Your task to perform on an android device: Open Maps and search for coffee Image 0: 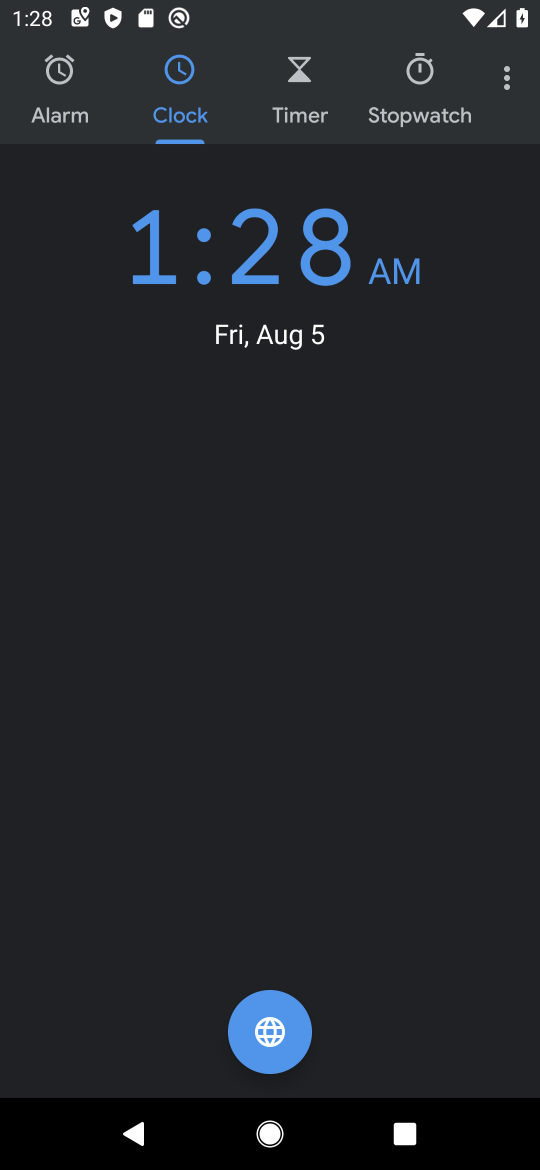
Step 0: press home button
Your task to perform on an android device: Open Maps and search for coffee Image 1: 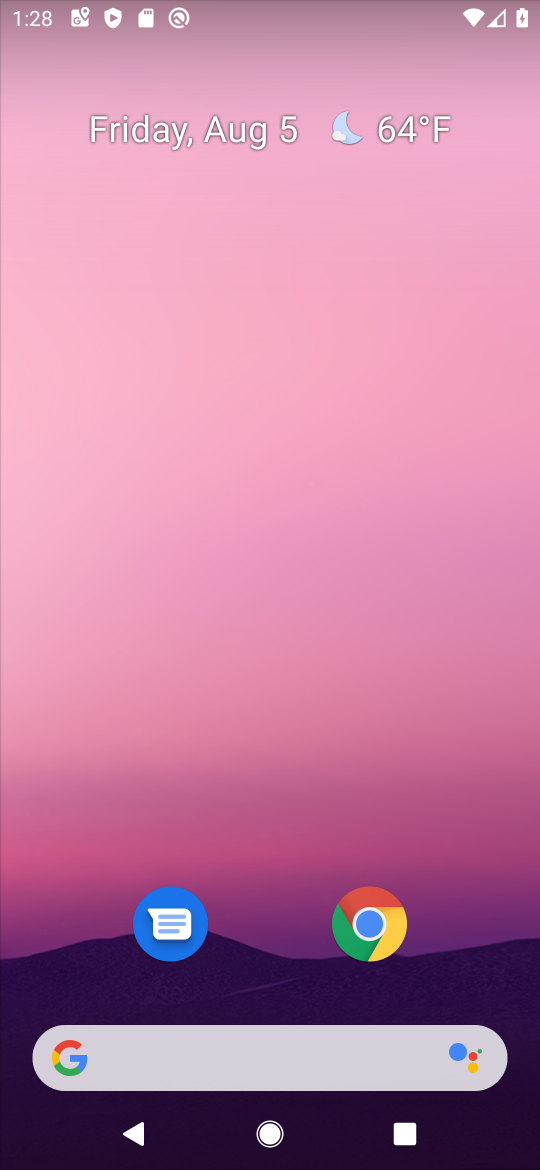
Step 1: drag from (202, 1064) to (272, 224)
Your task to perform on an android device: Open Maps and search for coffee Image 2: 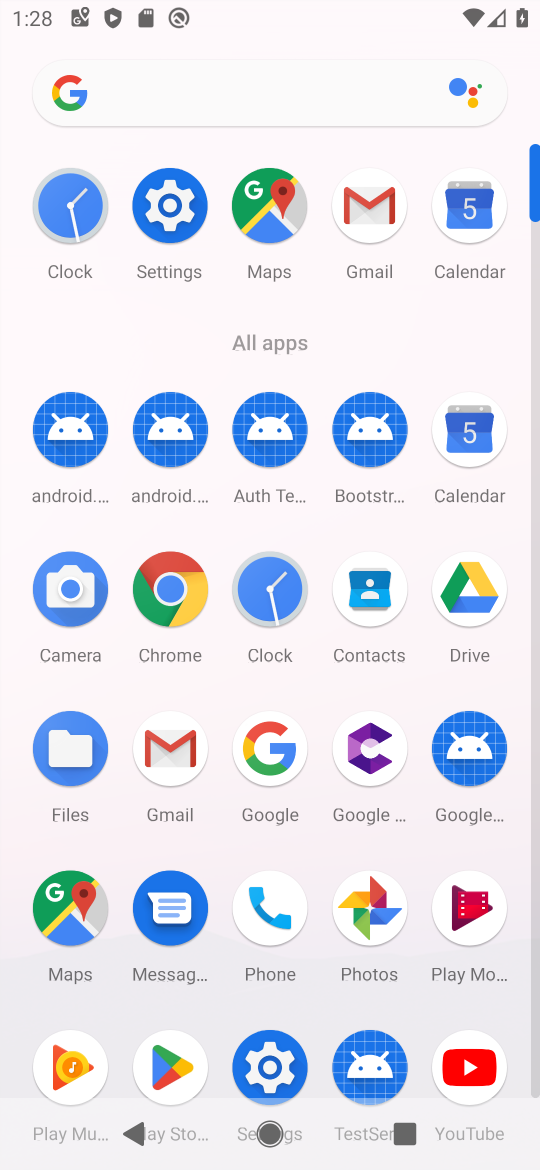
Step 2: click (276, 208)
Your task to perform on an android device: Open Maps and search for coffee Image 3: 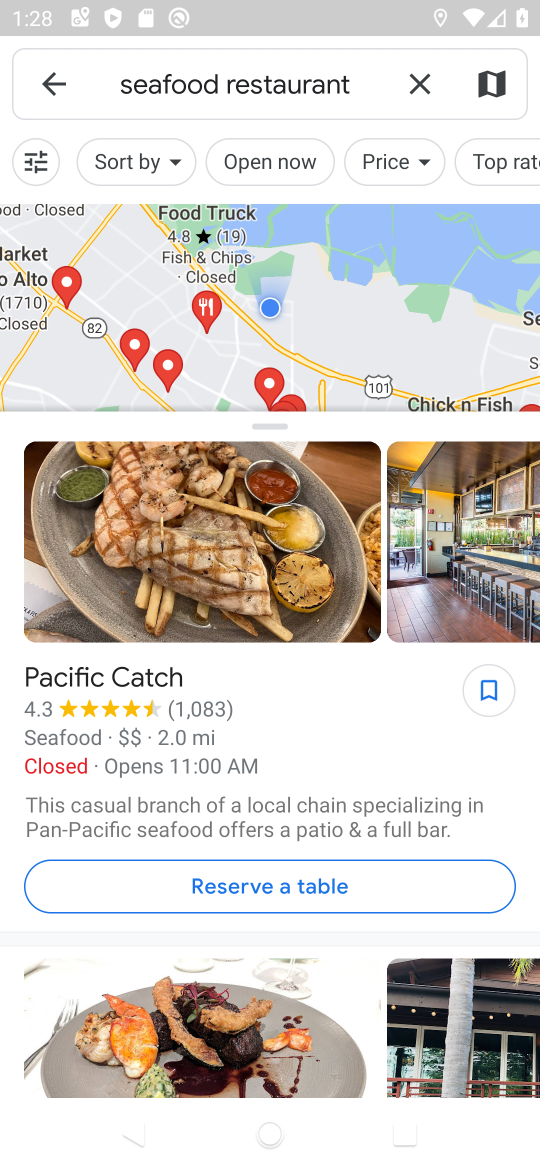
Step 3: click (420, 81)
Your task to perform on an android device: Open Maps and search for coffee Image 4: 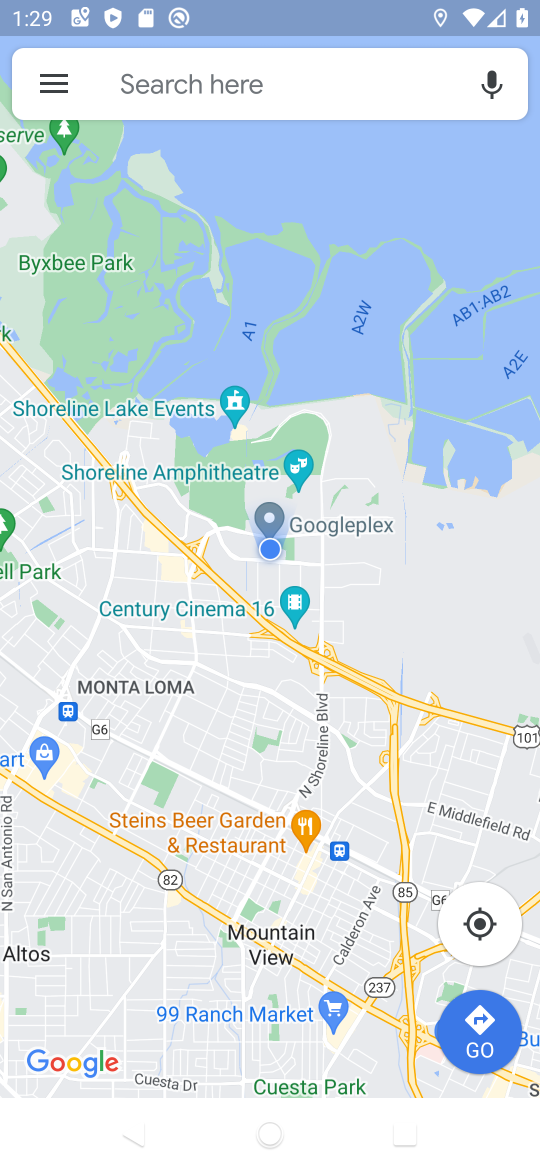
Step 4: click (329, 95)
Your task to perform on an android device: Open Maps and search for coffee Image 5: 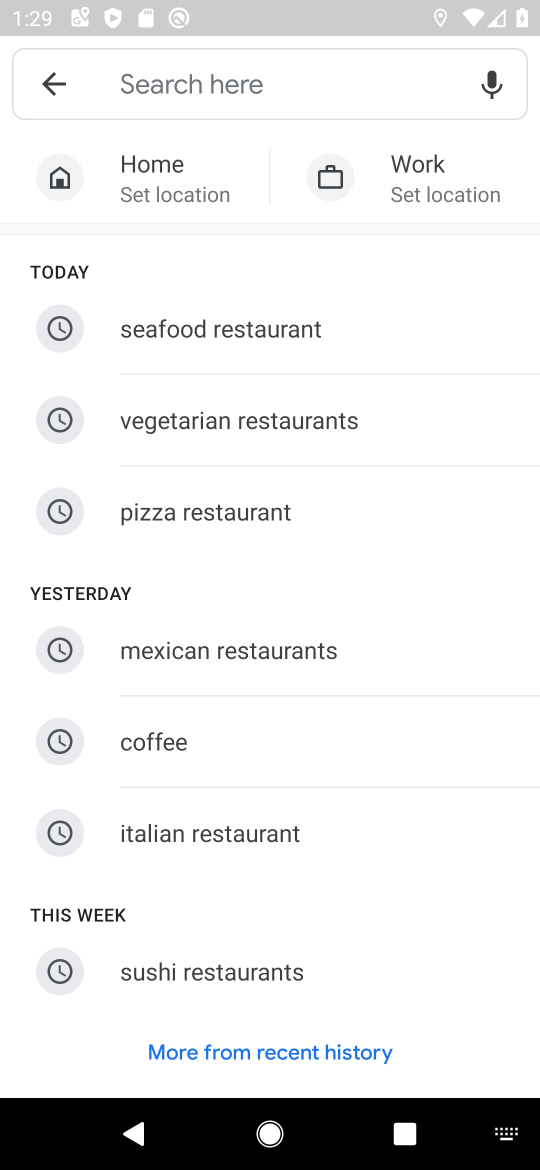
Step 5: type "coffee"
Your task to perform on an android device: Open Maps and search for coffee Image 6: 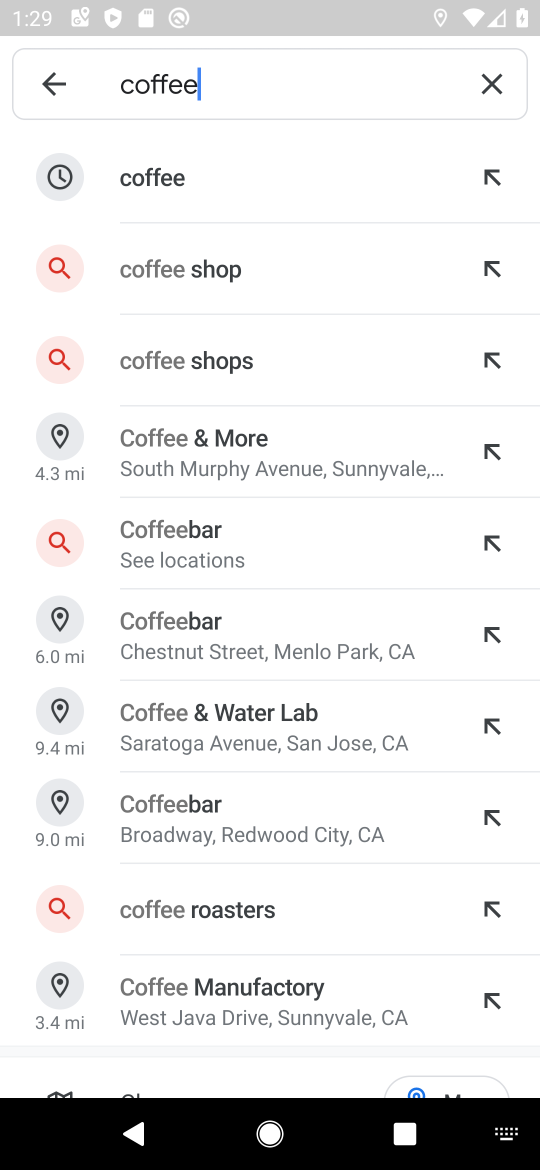
Step 6: click (162, 174)
Your task to perform on an android device: Open Maps and search for coffee Image 7: 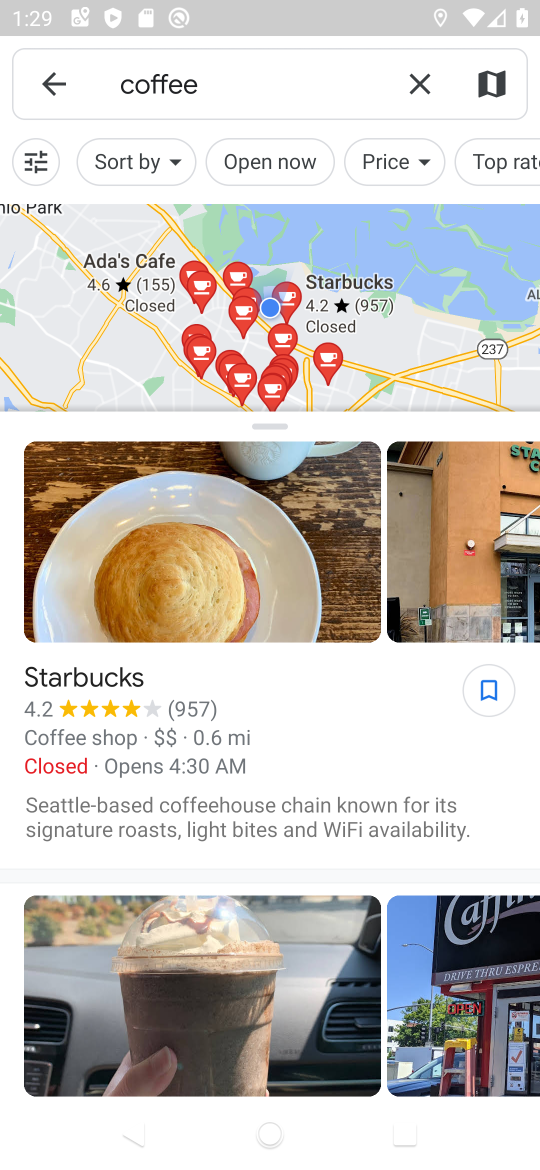
Step 7: task complete